Your task to perform on an android device: turn off picture-in-picture Image 0: 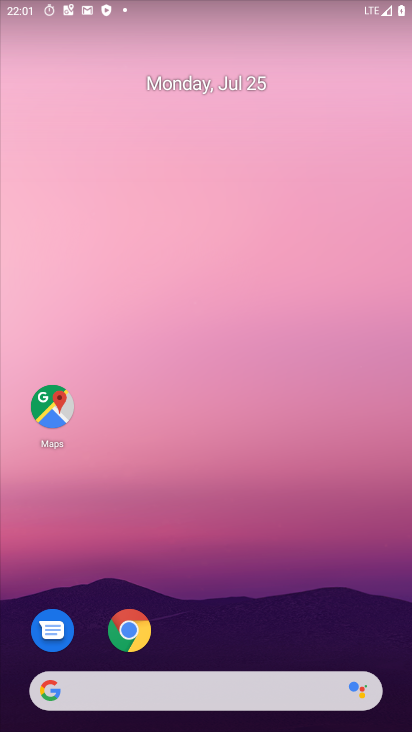
Step 0: press home button
Your task to perform on an android device: turn off picture-in-picture Image 1: 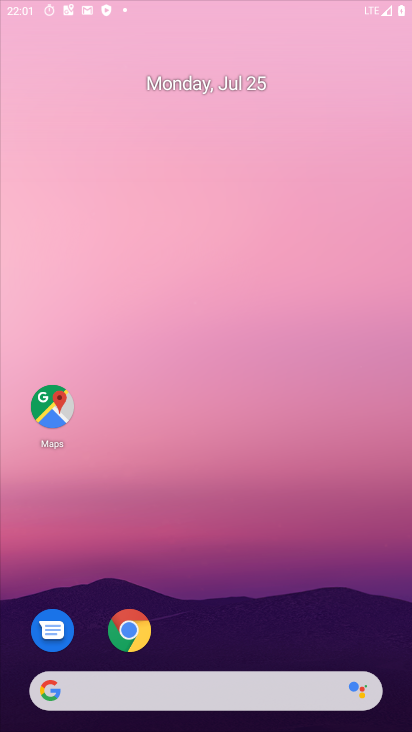
Step 1: press home button
Your task to perform on an android device: turn off picture-in-picture Image 2: 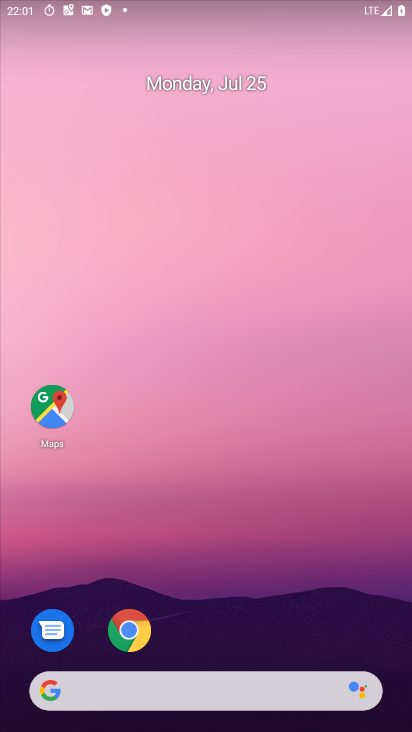
Step 2: click (132, 633)
Your task to perform on an android device: turn off picture-in-picture Image 3: 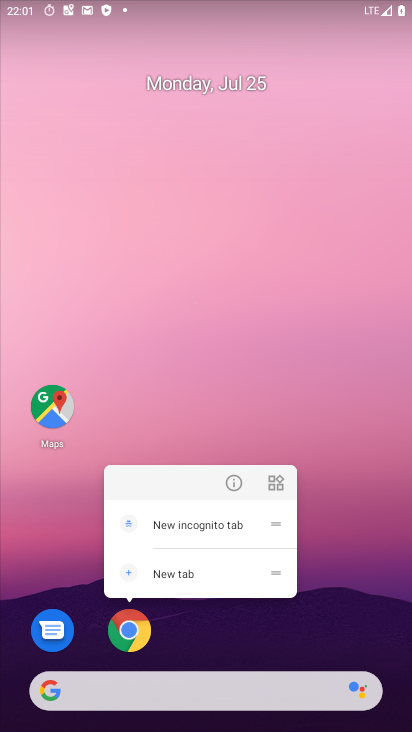
Step 3: click (234, 481)
Your task to perform on an android device: turn off picture-in-picture Image 4: 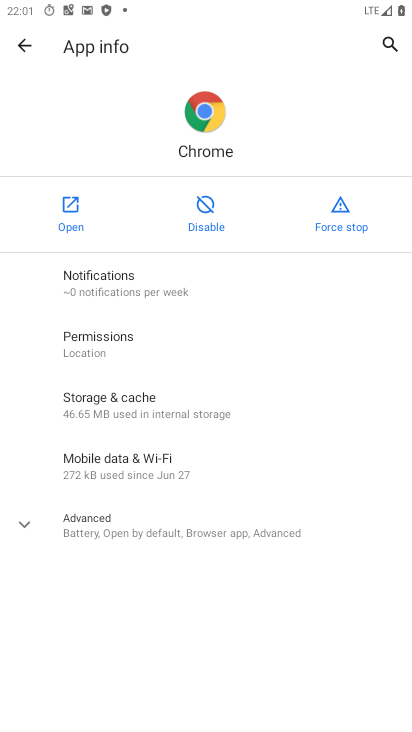
Step 4: click (82, 534)
Your task to perform on an android device: turn off picture-in-picture Image 5: 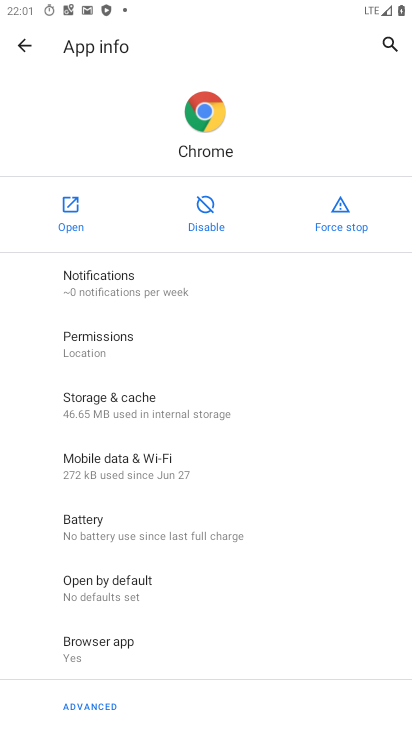
Step 5: drag from (333, 615) to (355, 199)
Your task to perform on an android device: turn off picture-in-picture Image 6: 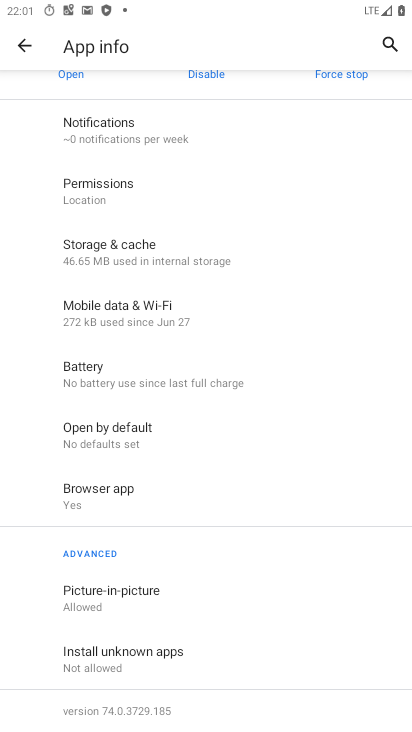
Step 6: click (90, 601)
Your task to perform on an android device: turn off picture-in-picture Image 7: 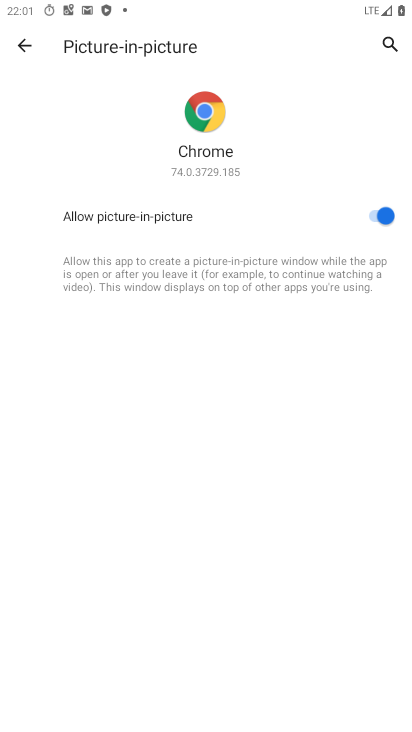
Step 7: click (390, 216)
Your task to perform on an android device: turn off picture-in-picture Image 8: 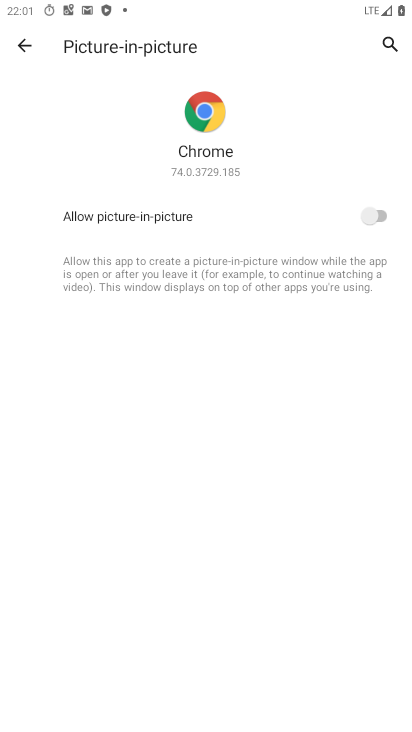
Step 8: task complete